Your task to perform on an android device: What is the news today? Image 0: 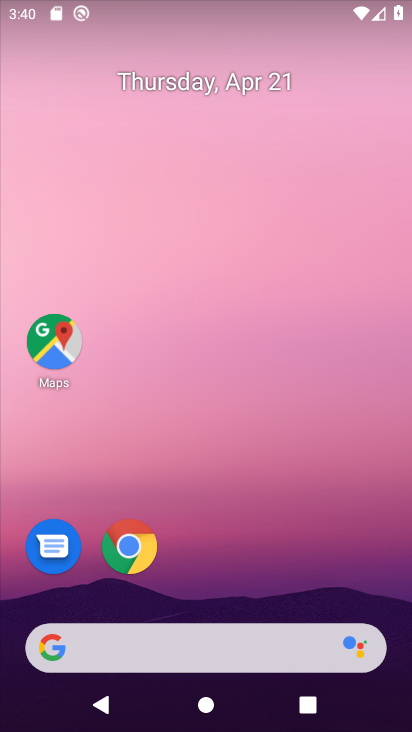
Step 0: click (222, 636)
Your task to perform on an android device: What is the news today? Image 1: 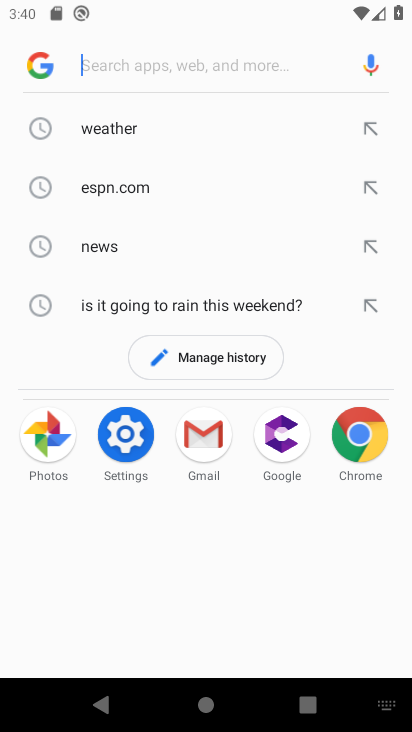
Step 1: click (44, 55)
Your task to perform on an android device: What is the news today? Image 2: 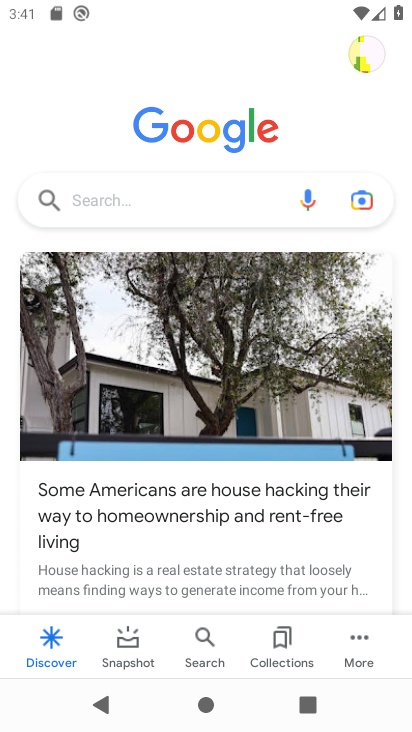
Step 2: task complete